Your task to perform on an android device: Open the calendar app, open the side menu, and click the "Day" option Image 0: 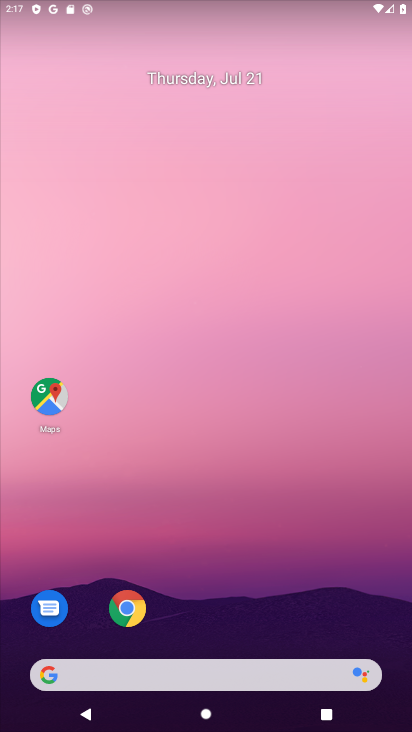
Step 0: drag from (212, 633) to (169, 107)
Your task to perform on an android device: Open the calendar app, open the side menu, and click the "Day" option Image 1: 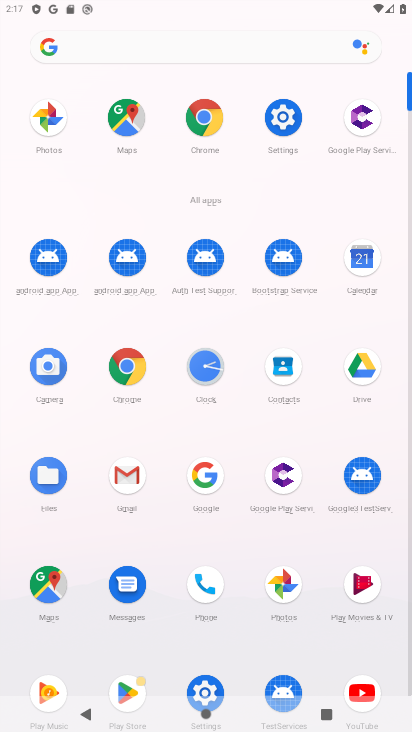
Step 1: click (354, 258)
Your task to perform on an android device: Open the calendar app, open the side menu, and click the "Day" option Image 2: 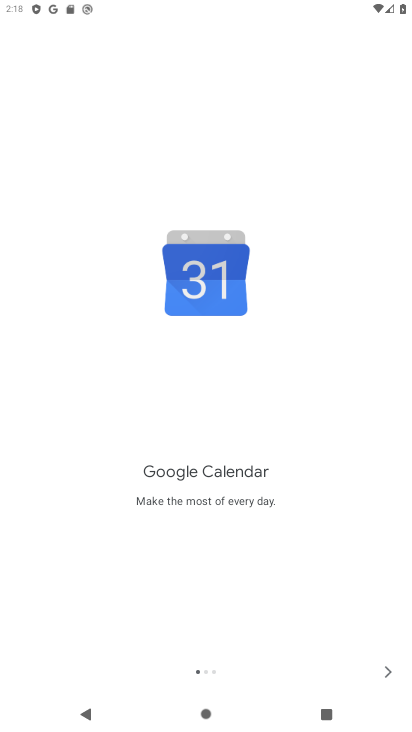
Step 2: press home button
Your task to perform on an android device: Open the calendar app, open the side menu, and click the "Day" option Image 3: 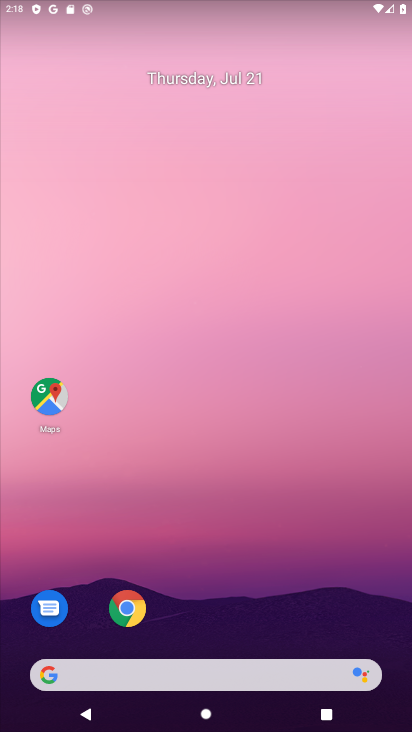
Step 3: drag from (219, 622) to (204, 48)
Your task to perform on an android device: Open the calendar app, open the side menu, and click the "Day" option Image 4: 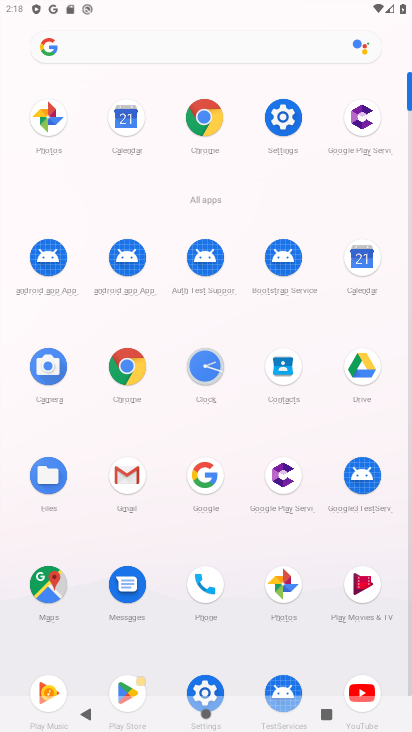
Step 4: click (363, 255)
Your task to perform on an android device: Open the calendar app, open the side menu, and click the "Day" option Image 5: 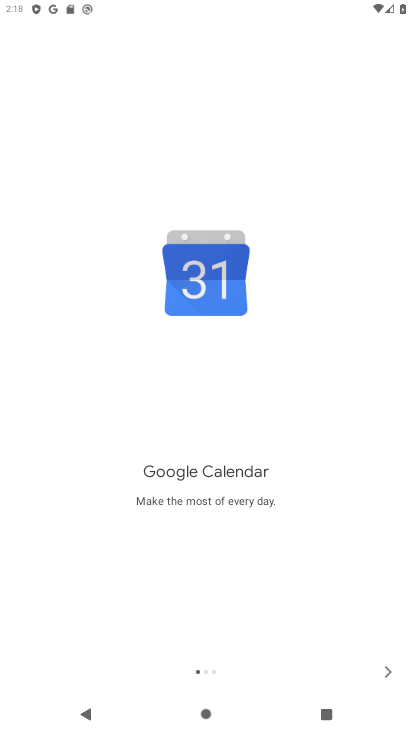
Step 5: click (387, 669)
Your task to perform on an android device: Open the calendar app, open the side menu, and click the "Day" option Image 6: 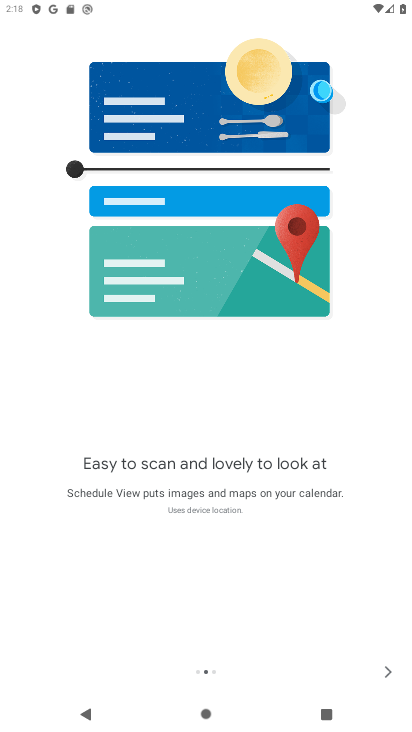
Step 6: click (390, 672)
Your task to perform on an android device: Open the calendar app, open the side menu, and click the "Day" option Image 7: 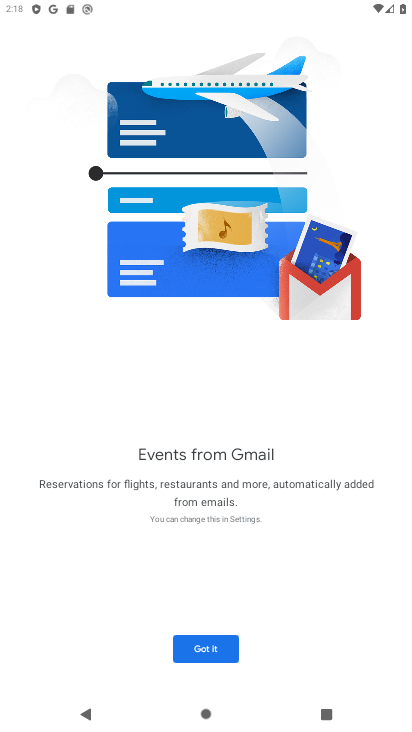
Step 7: click (205, 646)
Your task to perform on an android device: Open the calendar app, open the side menu, and click the "Day" option Image 8: 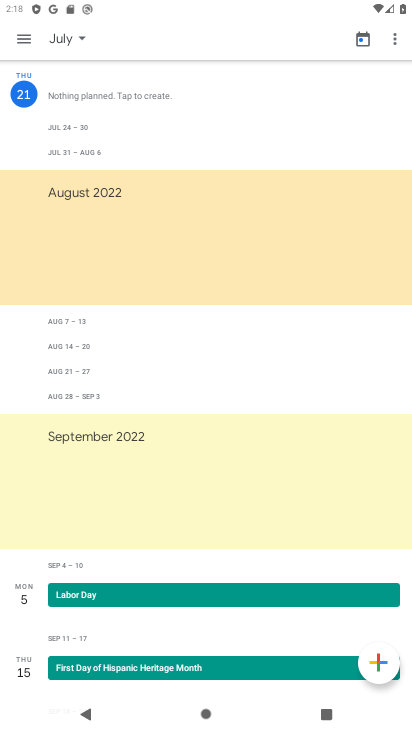
Step 8: click (20, 39)
Your task to perform on an android device: Open the calendar app, open the side menu, and click the "Day" option Image 9: 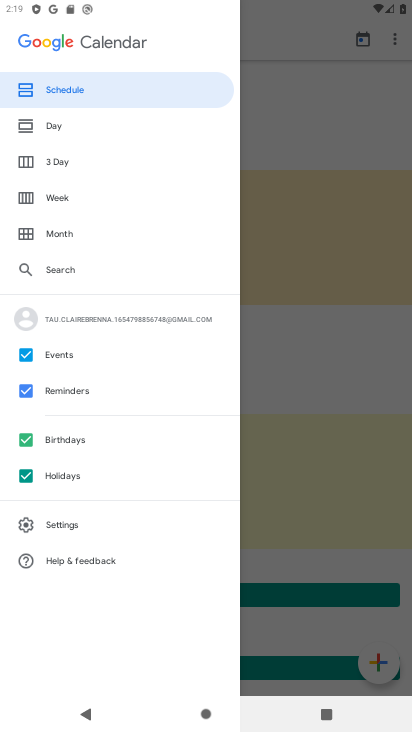
Step 9: click (48, 121)
Your task to perform on an android device: Open the calendar app, open the side menu, and click the "Day" option Image 10: 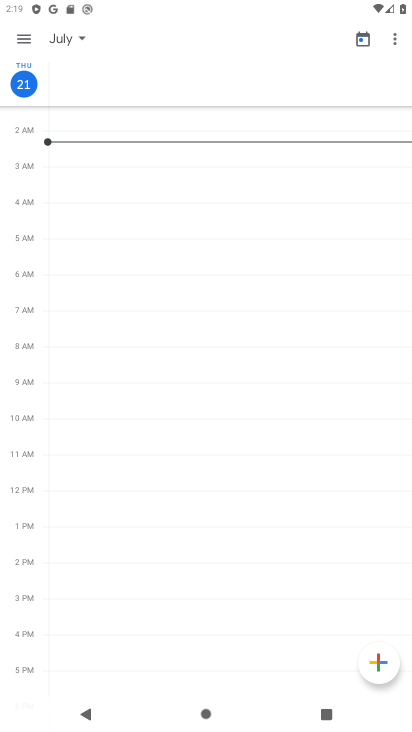
Step 10: task complete